Your task to perform on an android device: Open Yahoo.com Image 0: 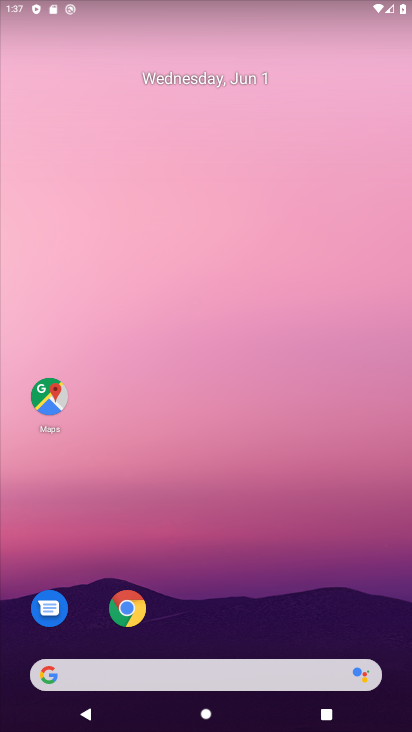
Step 0: drag from (356, 626) to (231, 28)
Your task to perform on an android device: Open Yahoo.com Image 1: 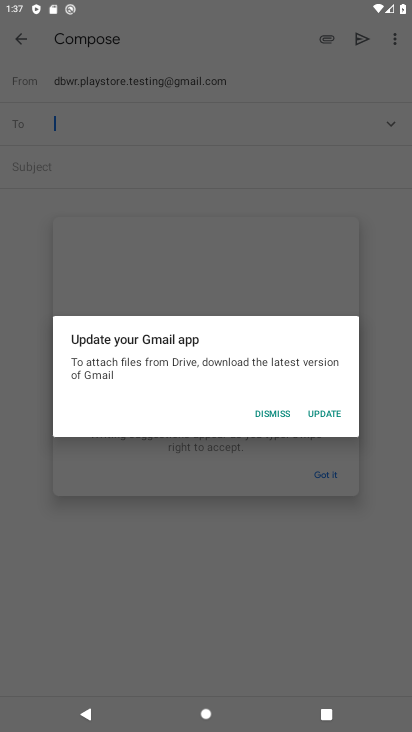
Step 1: press home button
Your task to perform on an android device: Open Yahoo.com Image 2: 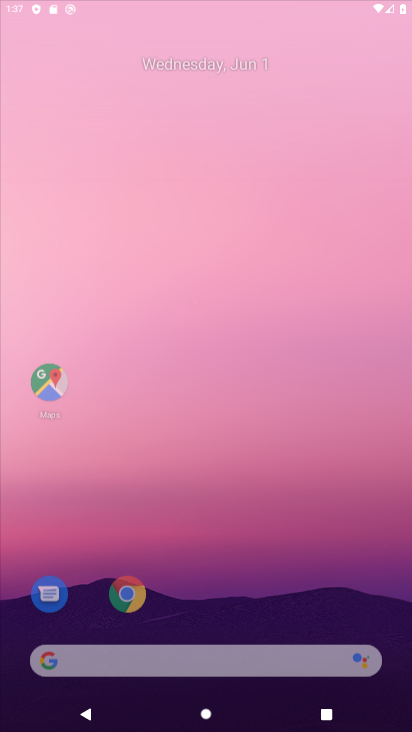
Step 2: drag from (386, 653) to (242, 90)
Your task to perform on an android device: Open Yahoo.com Image 3: 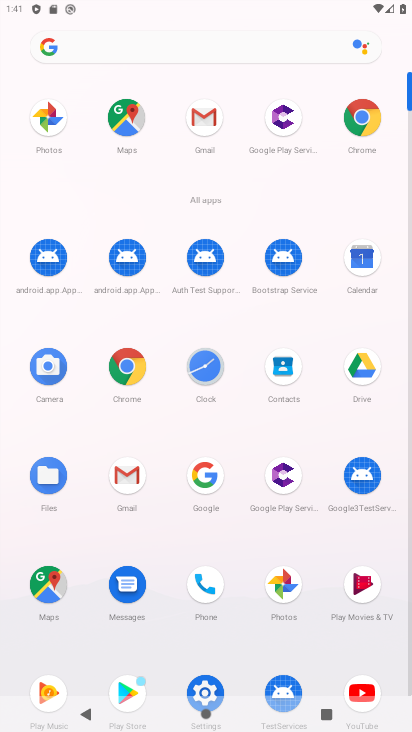
Step 3: click (199, 476)
Your task to perform on an android device: Open Yahoo.com Image 4: 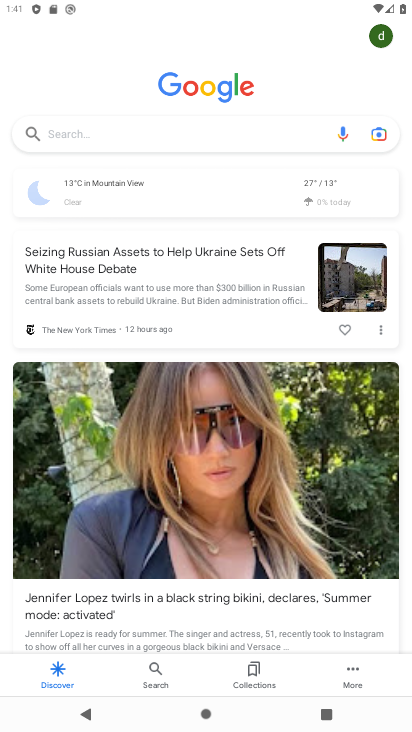
Step 4: click (151, 130)
Your task to perform on an android device: Open Yahoo.com Image 5: 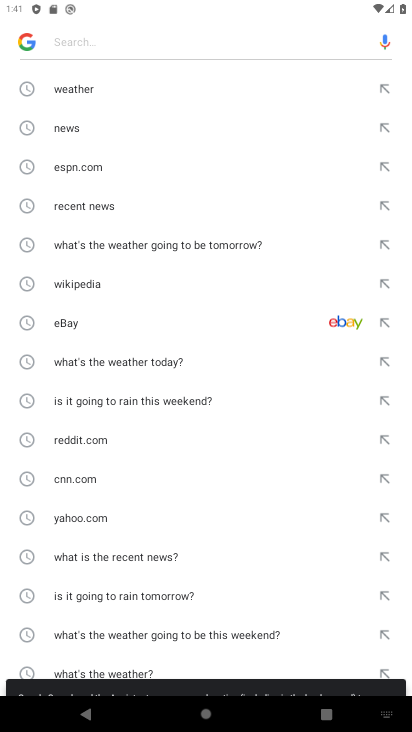
Step 5: click (85, 528)
Your task to perform on an android device: Open Yahoo.com Image 6: 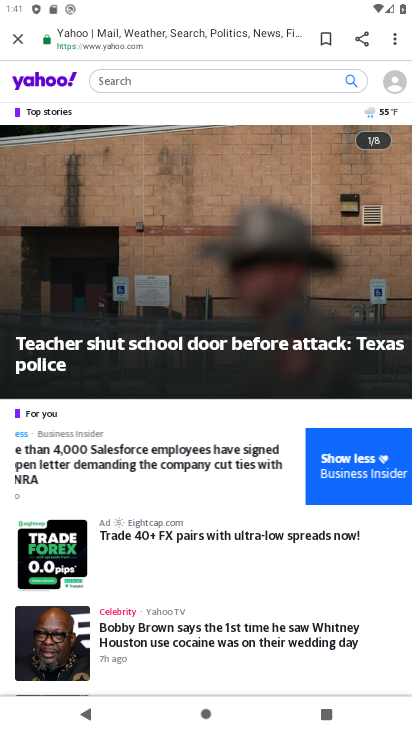
Step 6: task complete